Your task to perform on an android device: Open my contact list Image 0: 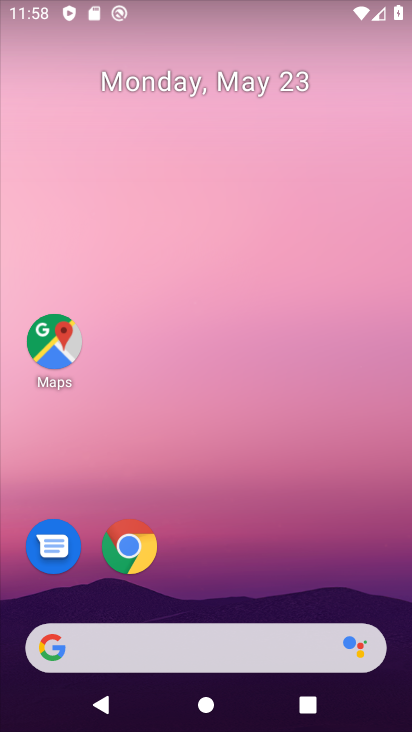
Step 0: drag from (182, 646) to (264, 151)
Your task to perform on an android device: Open my contact list Image 1: 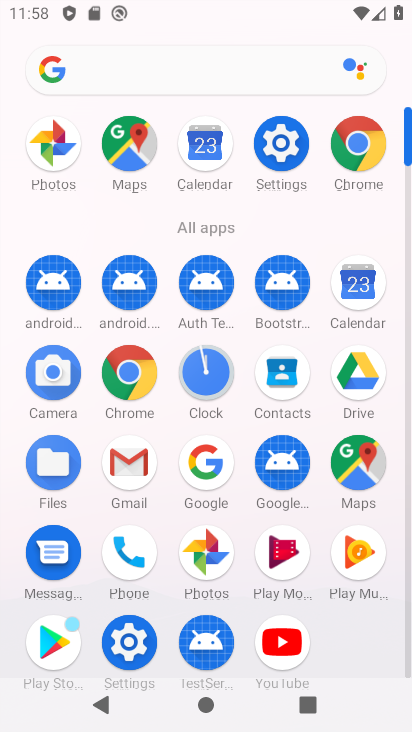
Step 1: click (283, 375)
Your task to perform on an android device: Open my contact list Image 2: 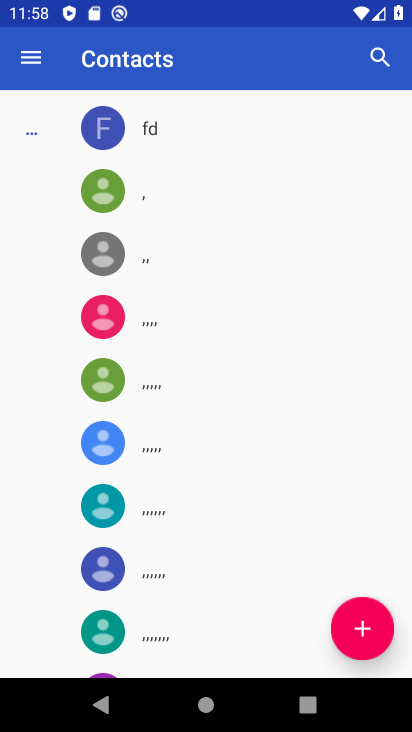
Step 2: task complete